Your task to perform on an android device: star an email in the gmail app Image 0: 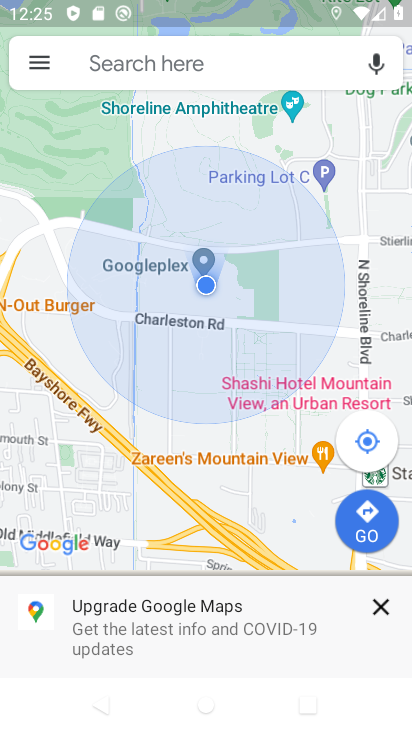
Step 0: click (386, 619)
Your task to perform on an android device: star an email in the gmail app Image 1: 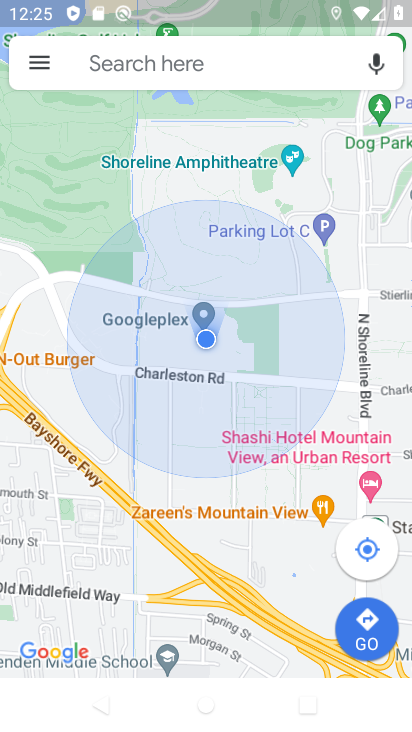
Step 1: press home button
Your task to perform on an android device: star an email in the gmail app Image 2: 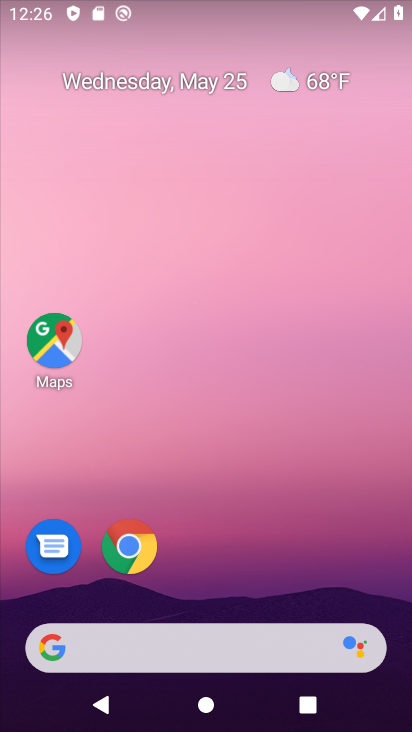
Step 2: drag from (302, 566) to (311, 0)
Your task to perform on an android device: star an email in the gmail app Image 3: 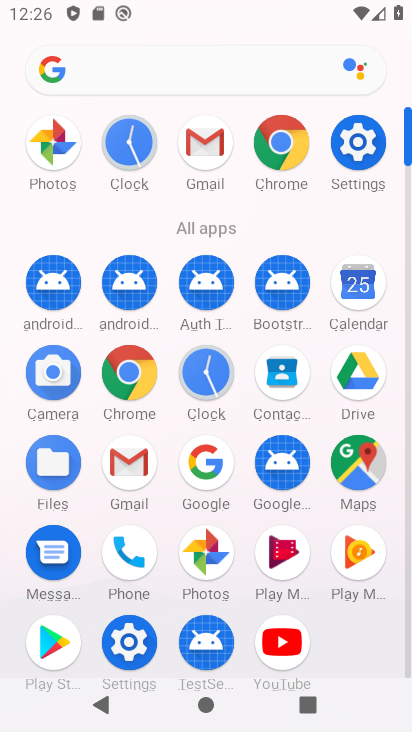
Step 3: click (227, 151)
Your task to perform on an android device: star an email in the gmail app Image 4: 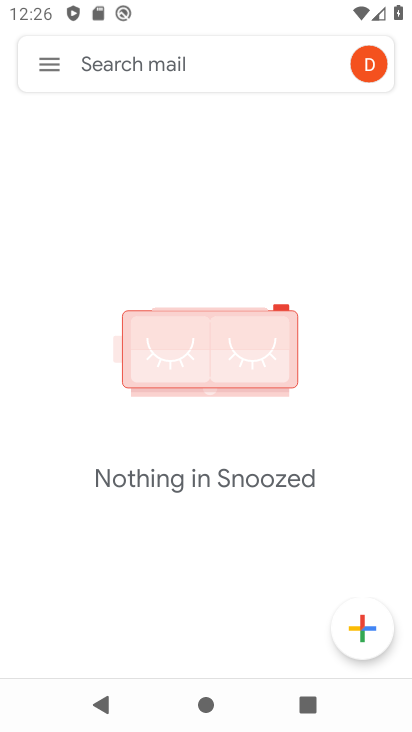
Step 4: click (61, 72)
Your task to perform on an android device: star an email in the gmail app Image 5: 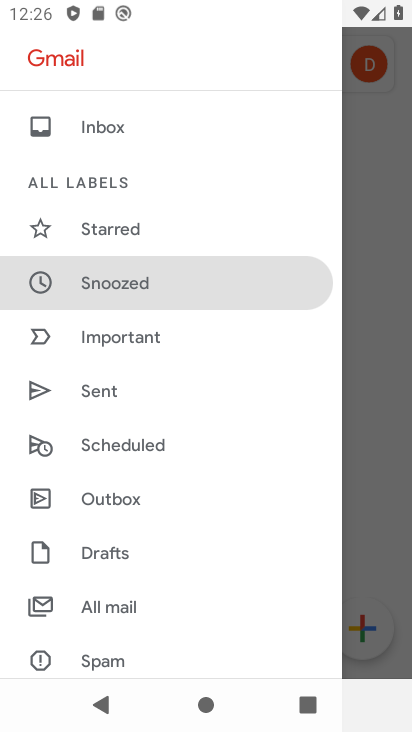
Step 5: click (103, 235)
Your task to perform on an android device: star an email in the gmail app Image 6: 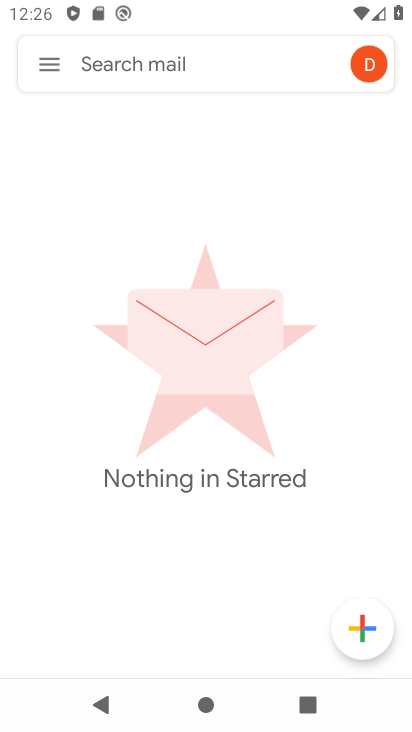
Step 6: task complete